Your task to perform on an android device: add a contact in the contacts app Image 0: 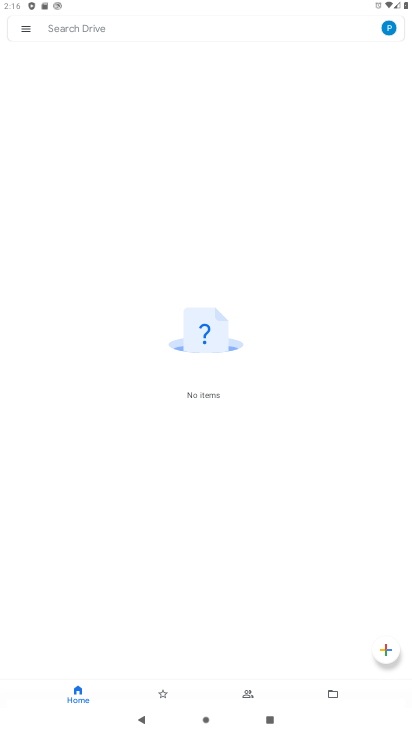
Step 0: press home button
Your task to perform on an android device: add a contact in the contacts app Image 1: 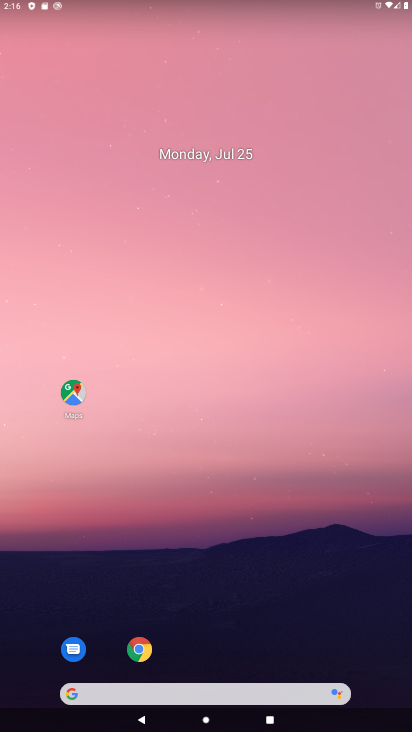
Step 1: drag from (386, 650) to (324, 154)
Your task to perform on an android device: add a contact in the contacts app Image 2: 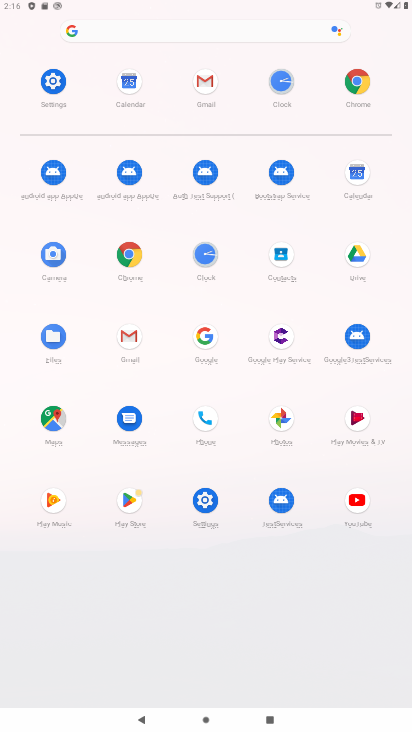
Step 2: click (277, 256)
Your task to perform on an android device: add a contact in the contacts app Image 3: 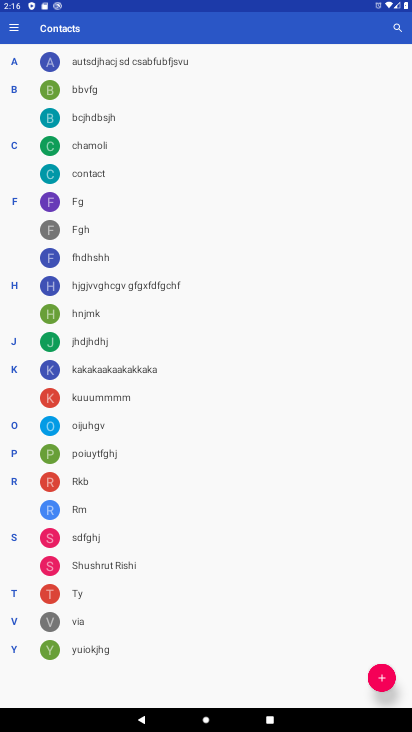
Step 3: click (381, 674)
Your task to perform on an android device: add a contact in the contacts app Image 4: 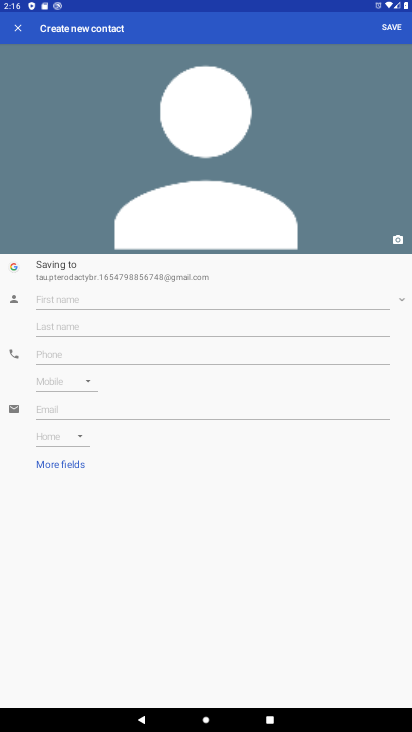
Step 4: click (58, 304)
Your task to perform on an android device: add a contact in the contacts app Image 5: 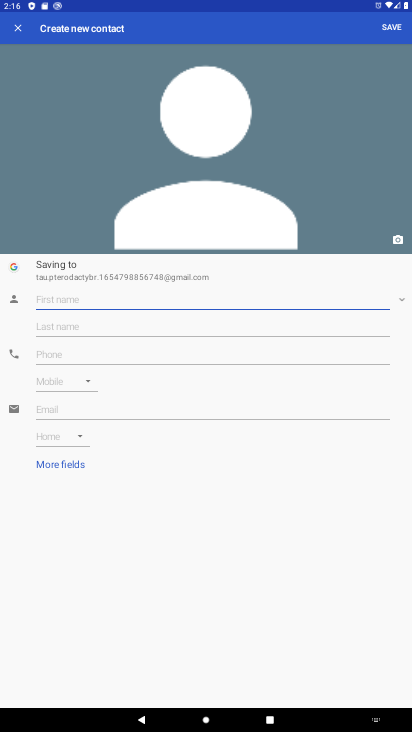
Step 5: type "iyuyujjh"
Your task to perform on an android device: add a contact in the contacts app Image 6: 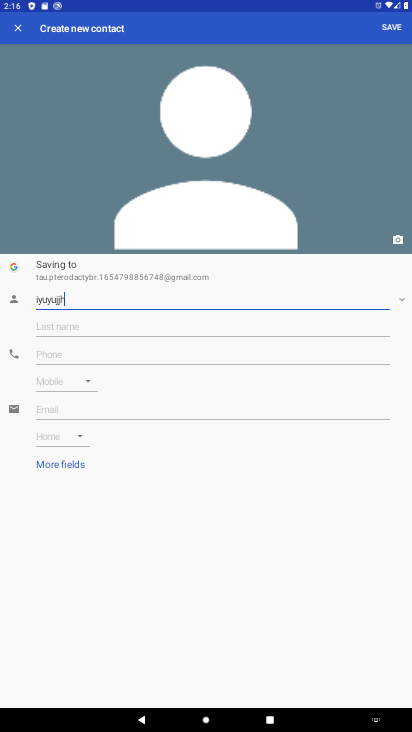
Step 6: click (77, 355)
Your task to perform on an android device: add a contact in the contacts app Image 7: 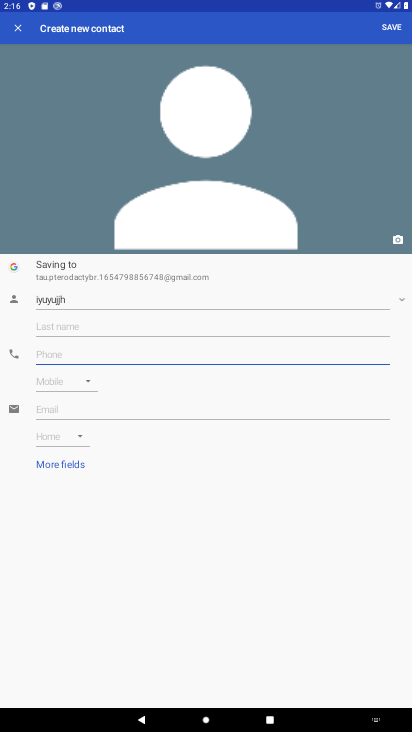
Step 7: type "0975453654"
Your task to perform on an android device: add a contact in the contacts app Image 8: 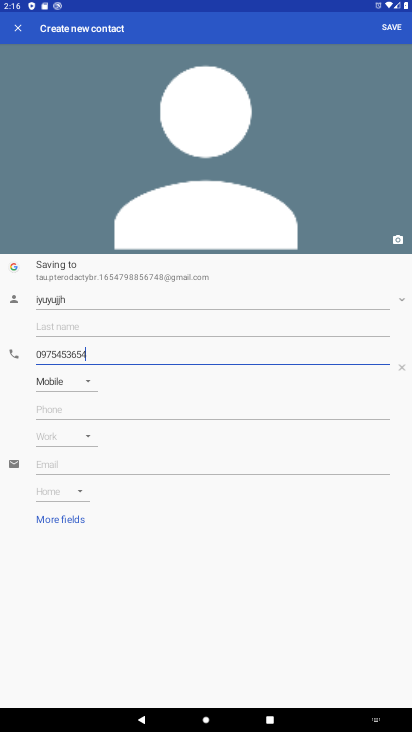
Step 8: click (386, 26)
Your task to perform on an android device: add a contact in the contacts app Image 9: 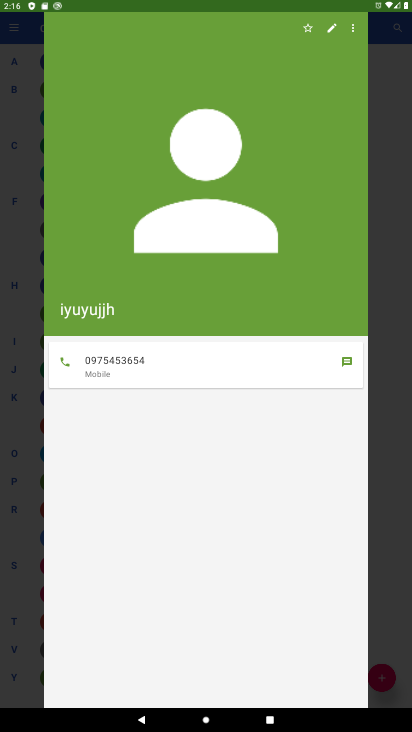
Step 9: task complete